Your task to perform on an android device: search for starred emails in the gmail app Image 0: 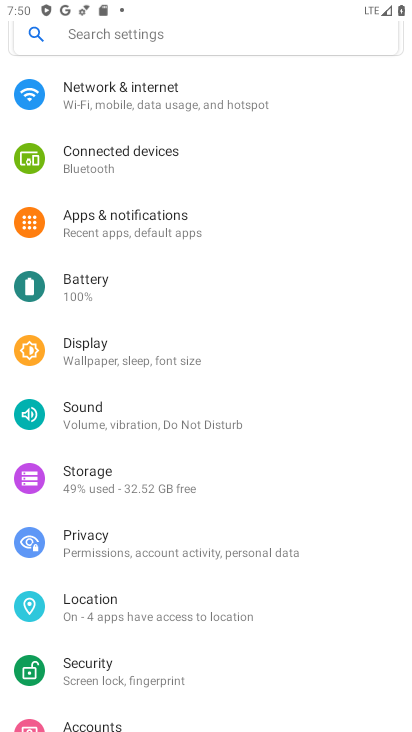
Step 0: press home button
Your task to perform on an android device: search for starred emails in the gmail app Image 1: 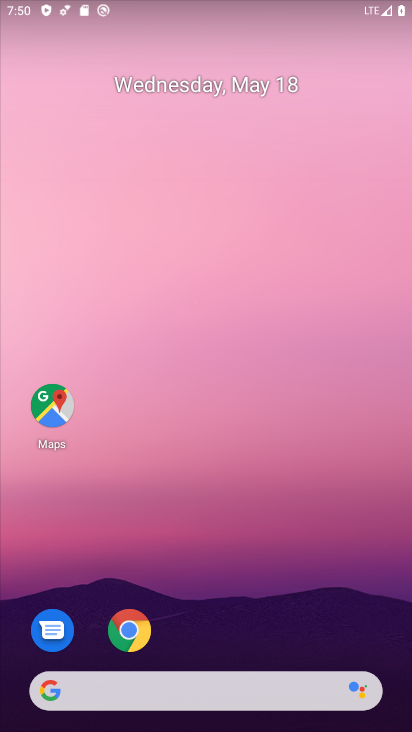
Step 1: drag from (221, 566) to (165, 83)
Your task to perform on an android device: search for starred emails in the gmail app Image 2: 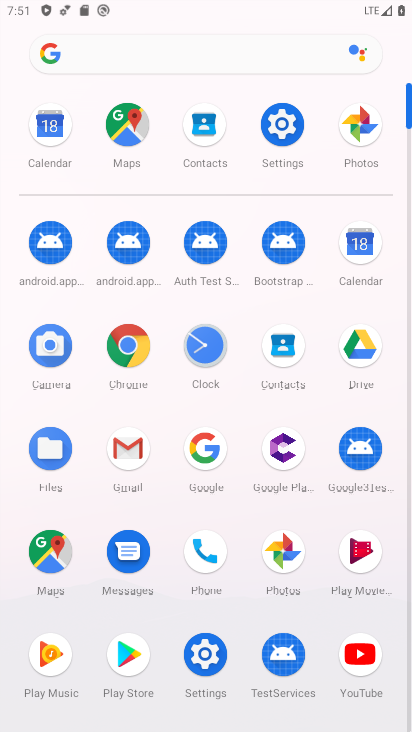
Step 2: click (196, 449)
Your task to perform on an android device: search for starred emails in the gmail app Image 3: 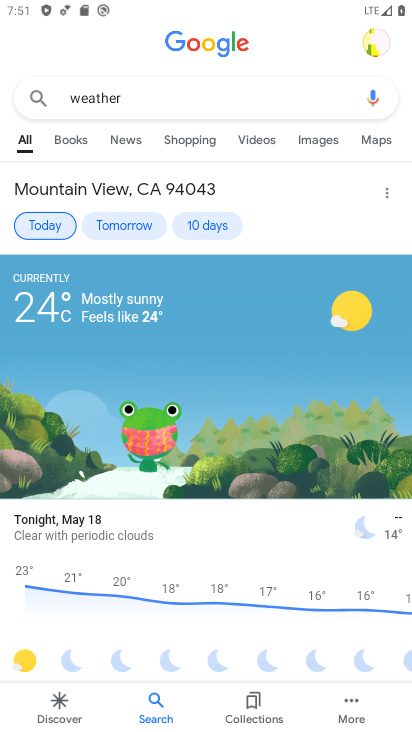
Step 3: press home button
Your task to perform on an android device: search for starred emails in the gmail app Image 4: 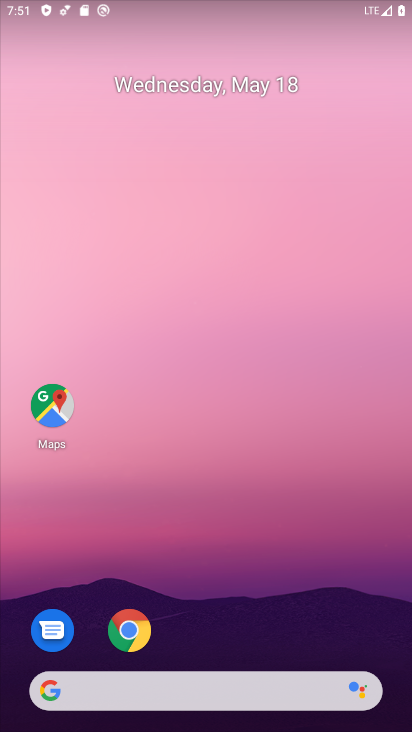
Step 4: drag from (249, 479) to (194, 4)
Your task to perform on an android device: search for starred emails in the gmail app Image 5: 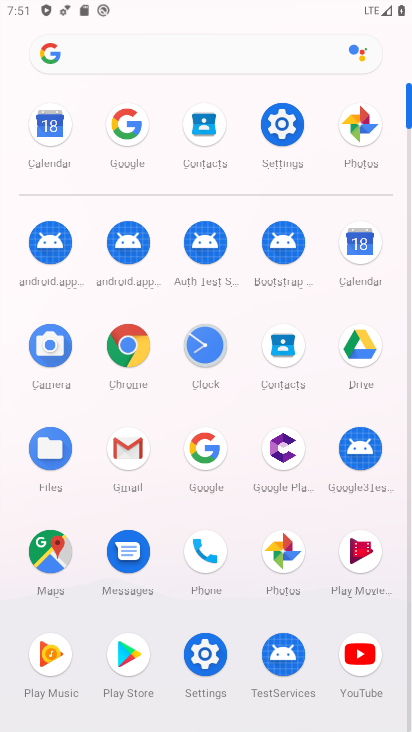
Step 5: click (131, 456)
Your task to perform on an android device: search for starred emails in the gmail app Image 6: 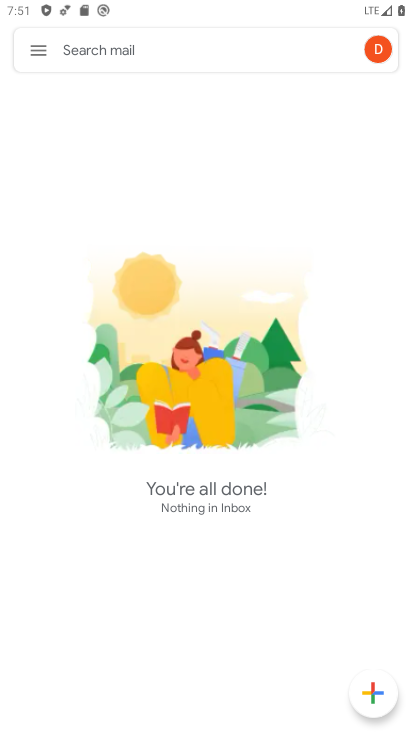
Step 6: click (40, 52)
Your task to perform on an android device: search for starred emails in the gmail app Image 7: 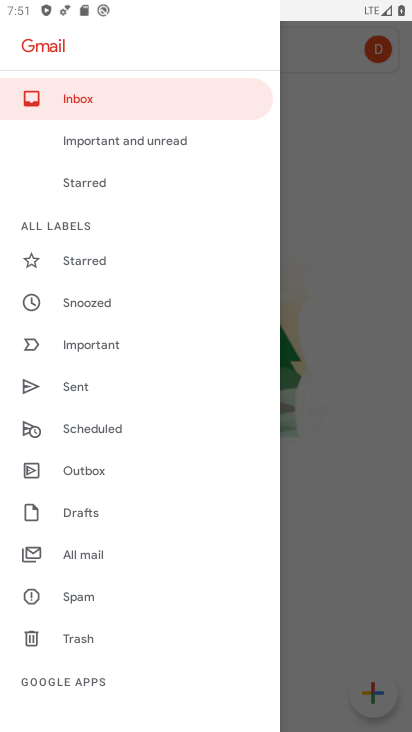
Step 7: click (86, 259)
Your task to perform on an android device: search for starred emails in the gmail app Image 8: 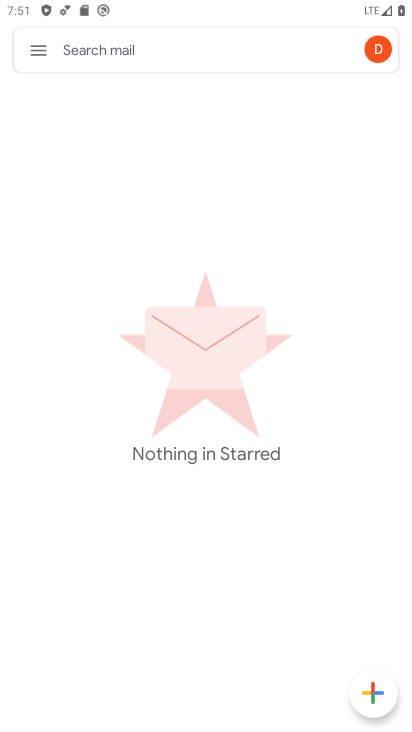
Step 8: task complete